Your task to perform on an android device: Open the calendar and show me this week's events Image 0: 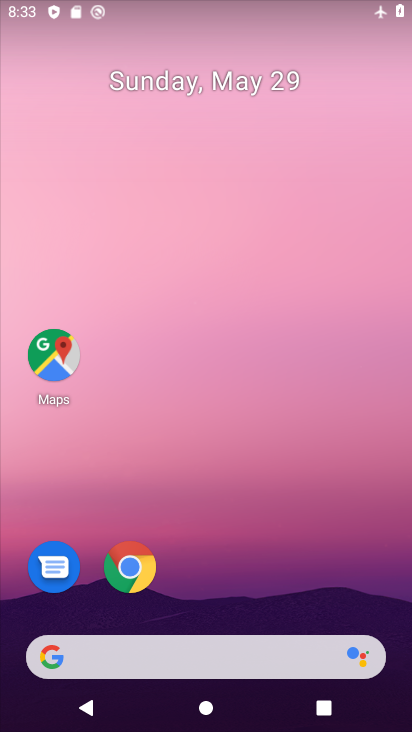
Step 0: drag from (385, 612) to (282, 13)
Your task to perform on an android device: Open the calendar and show me this week's events Image 1: 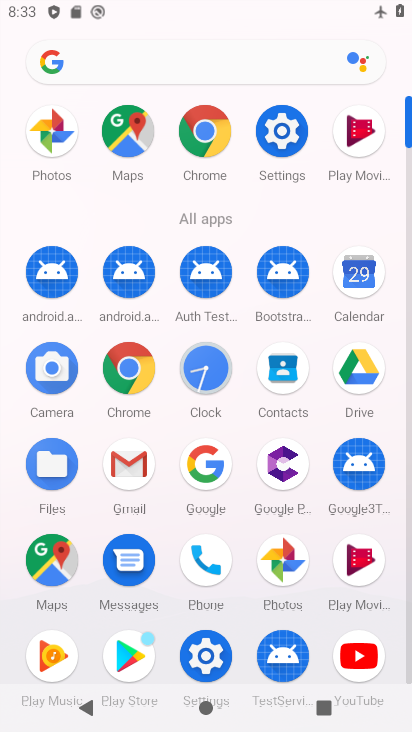
Step 1: click (411, 668)
Your task to perform on an android device: Open the calendar and show me this week's events Image 2: 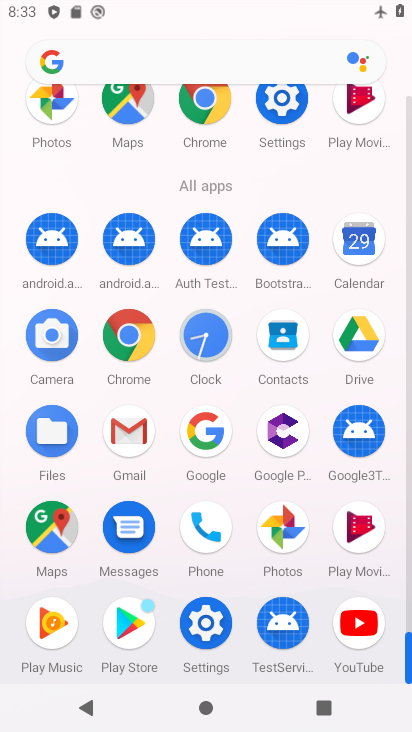
Step 2: click (359, 240)
Your task to perform on an android device: Open the calendar and show me this week's events Image 3: 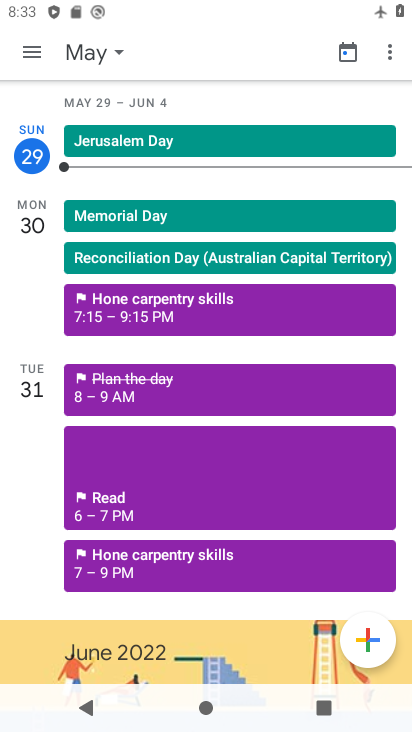
Step 3: click (30, 57)
Your task to perform on an android device: Open the calendar and show me this week's events Image 4: 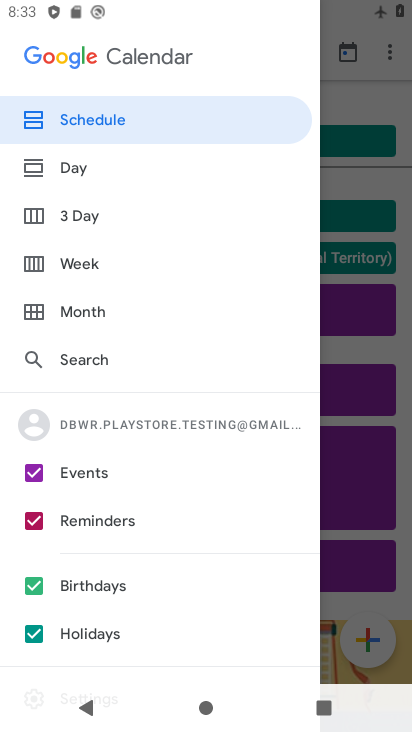
Step 4: click (75, 260)
Your task to perform on an android device: Open the calendar and show me this week's events Image 5: 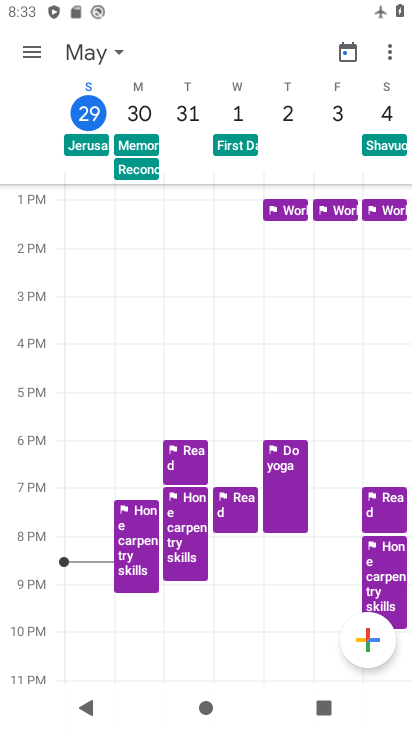
Step 5: task complete